Your task to perform on an android device: turn off notifications settings in the gmail app Image 0: 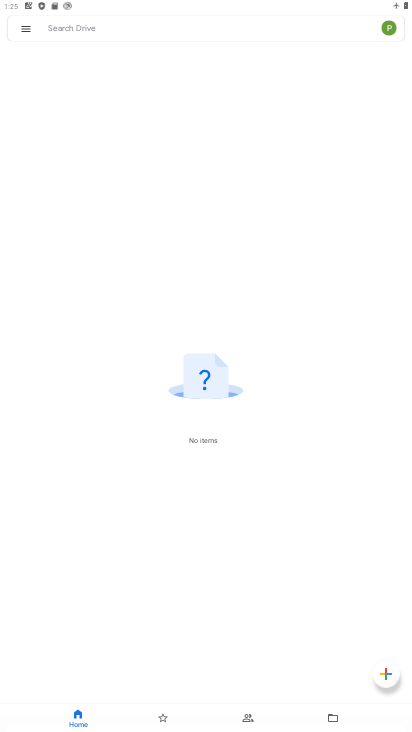
Step 0: press home button
Your task to perform on an android device: turn off notifications settings in the gmail app Image 1: 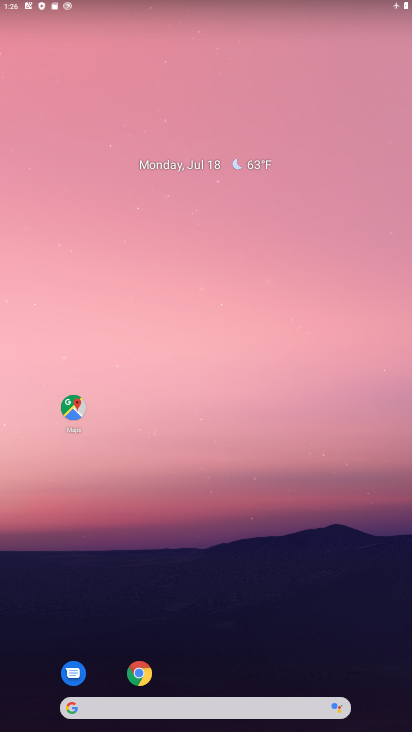
Step 1: drag from (216, 637) to (222, 335)
Your task to perform on an android device: turn off notifications settings in the gmail app Image 2: 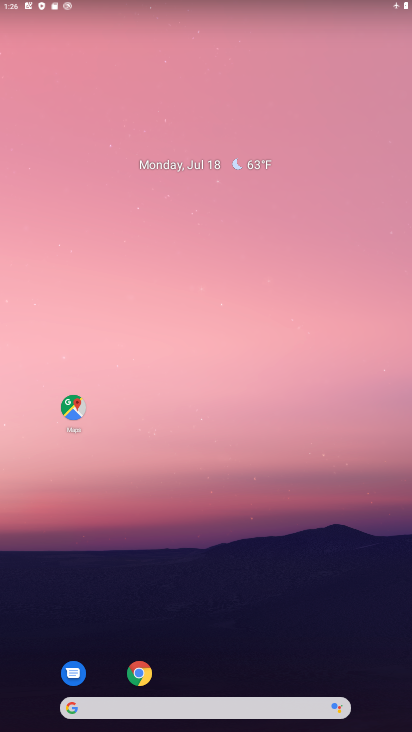
Step 2: drag from (247, 671) to (232, 97)
Your task to perform on an android device: turn off notifications settings in the gmail app Image 3: 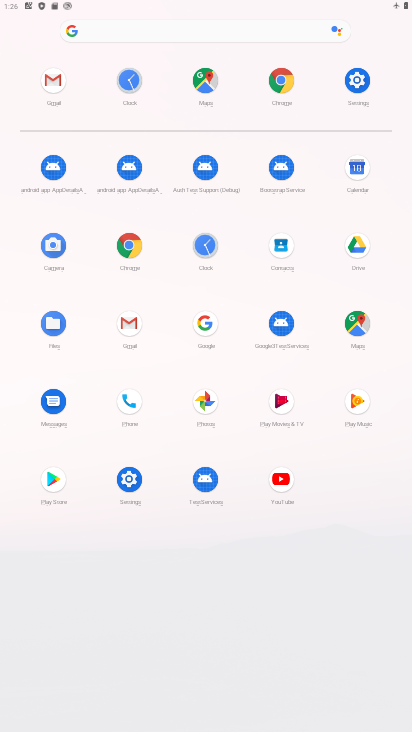
Step 3: click (128, 327)
Your task to perform on an android device: turn off notifications settings in the gmail app Image 4: 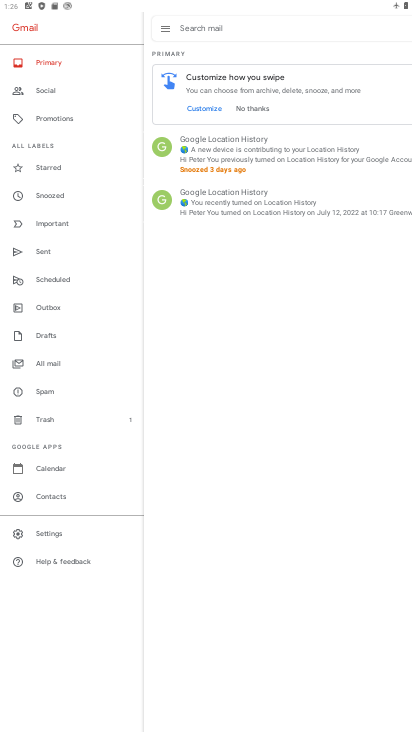
Step 4: click (43, 530)
Your task to perform on an android device: turn off notifications settings in the gmail app Image 5: 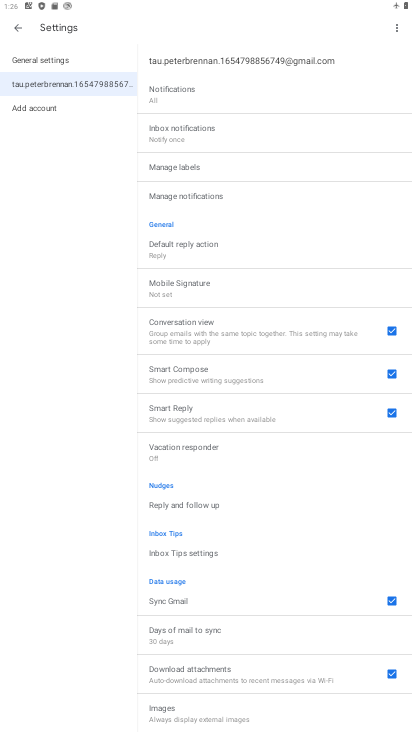
Step 5: click (190, 84)
Your task to perform on an android device: turn off notifications settings in the gmail app Image 6: 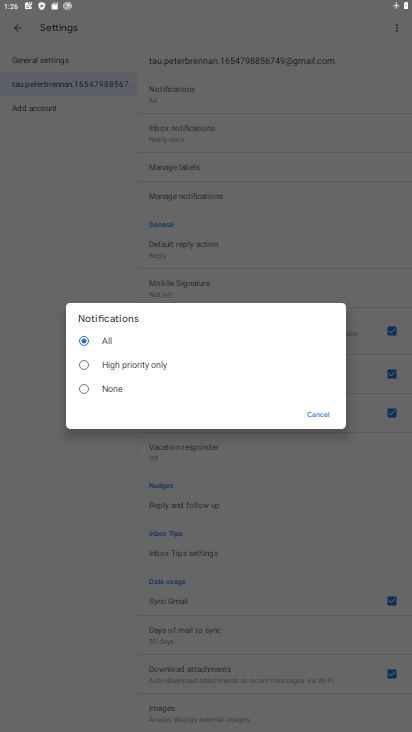
Step 6: click (109, 393)
Your task to perform on an android device: turn off notifications settings in the gmail app Image 7: 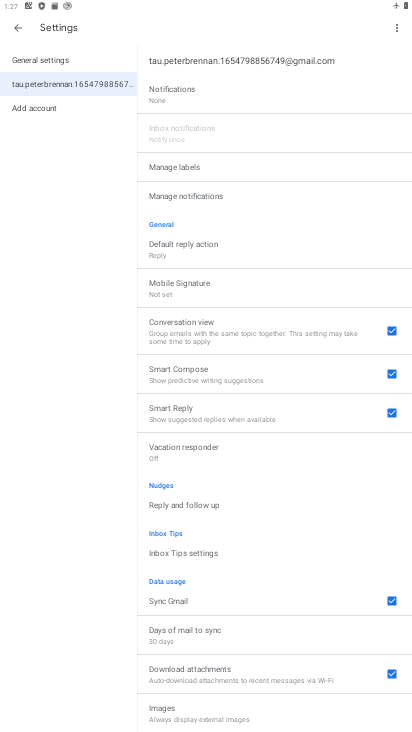
Step 7: task complete